Your task to perform on an android device: Open internet settings Image 0: 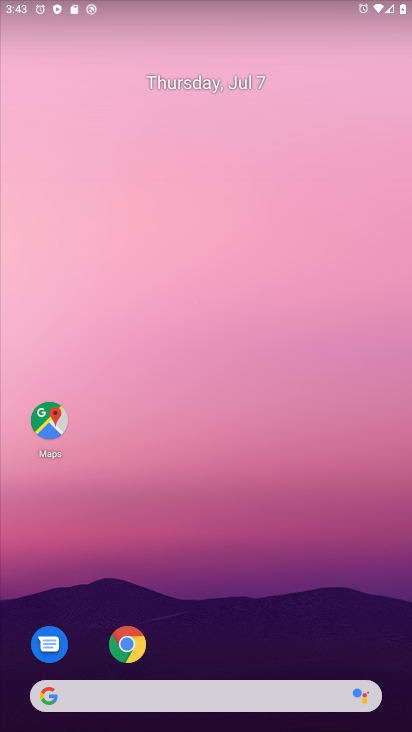
Step 0: drag from (210, 645) to (209, 0)
Your task to perform on an android device: Open internet settings Image 1: 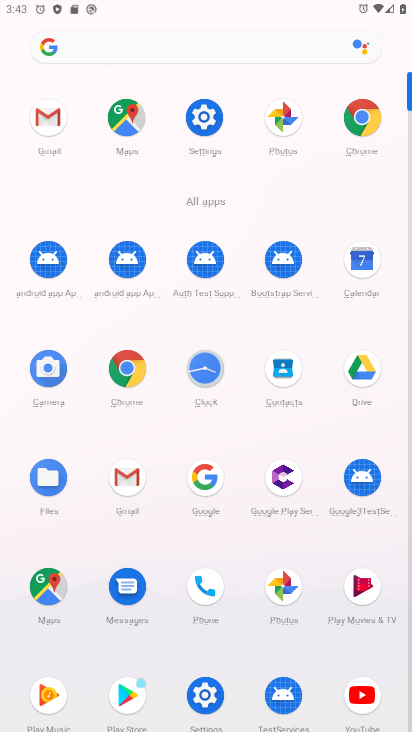
Step 1: click (198, 115)
Your task to perform on an android device: Open internet settings Image 2: 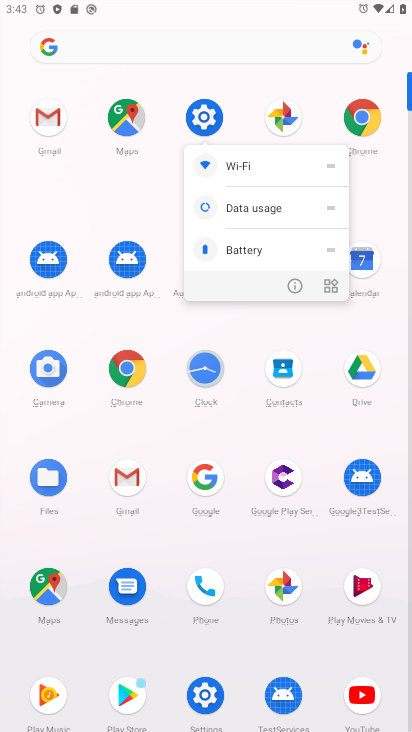
Step 2: click (200, 106)
Your task to perform on an android device: Open internet settings Image 3: 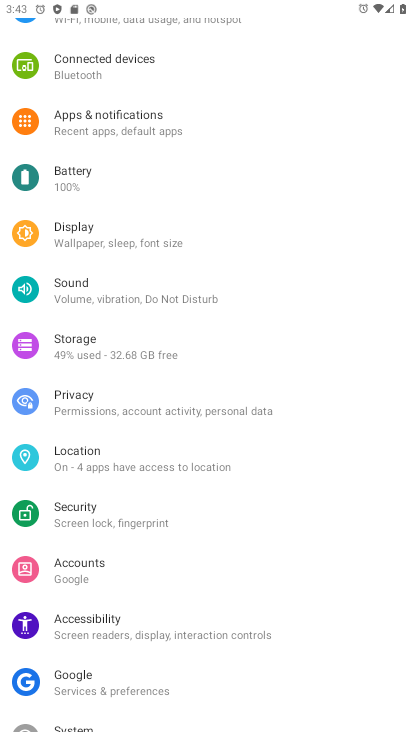
Step 3: drag from (147, 122) to (128, 412)
Your task to perform on an android device: Open internet settings Image 4: 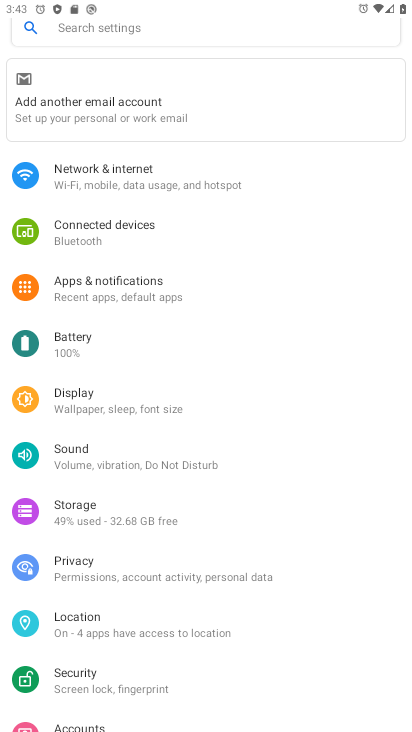
Step 4: click (56, 174)
Your task to perform on an android device: Open internet settings Image 5: 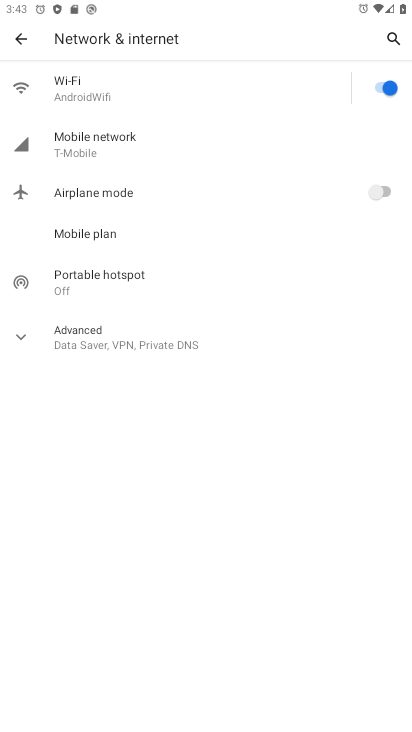
Step 5: task complete